Your task to perform on an android device: toggle priority inbox in the gmail app Image 0: 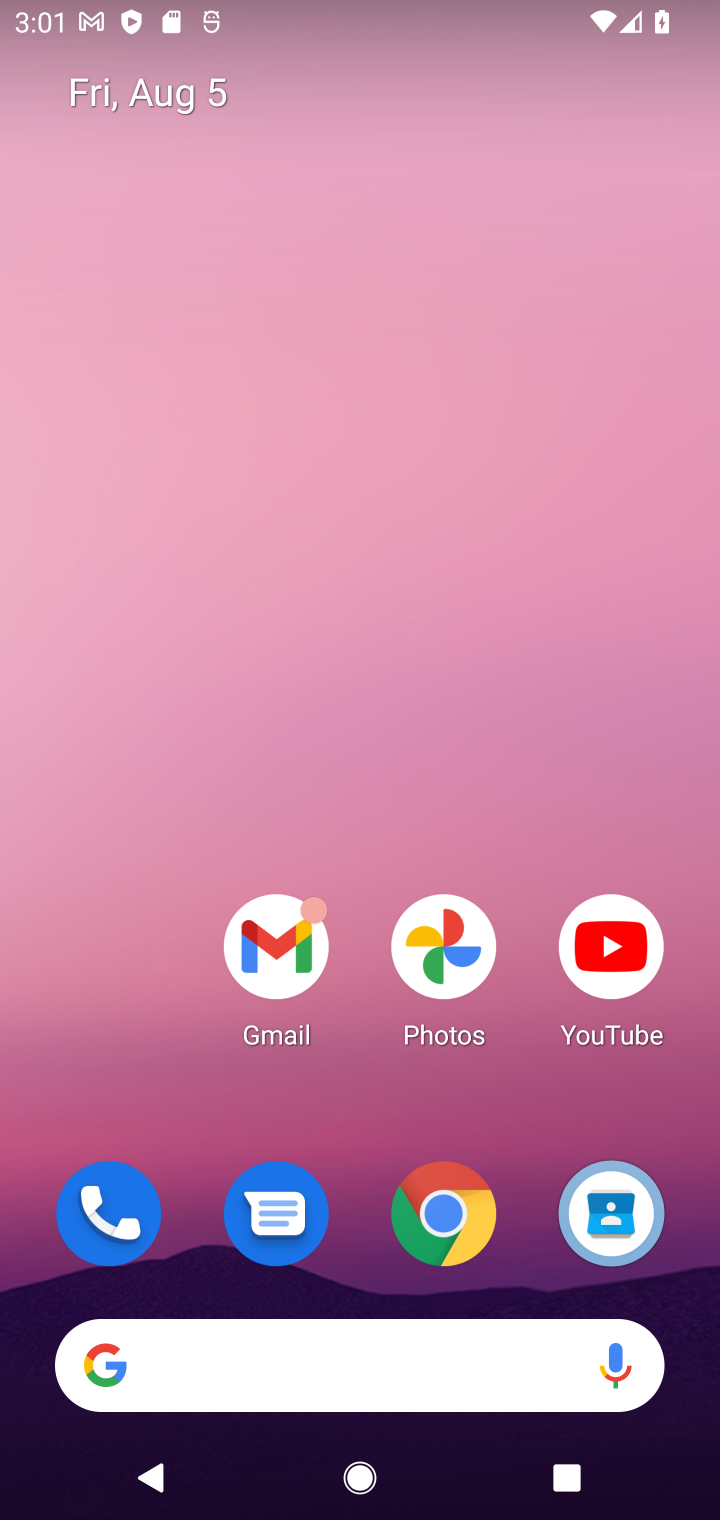
Step 0: click (254, 954)
Your task to perform on an android device: toggle priority inbox in the gmail app Image 1: 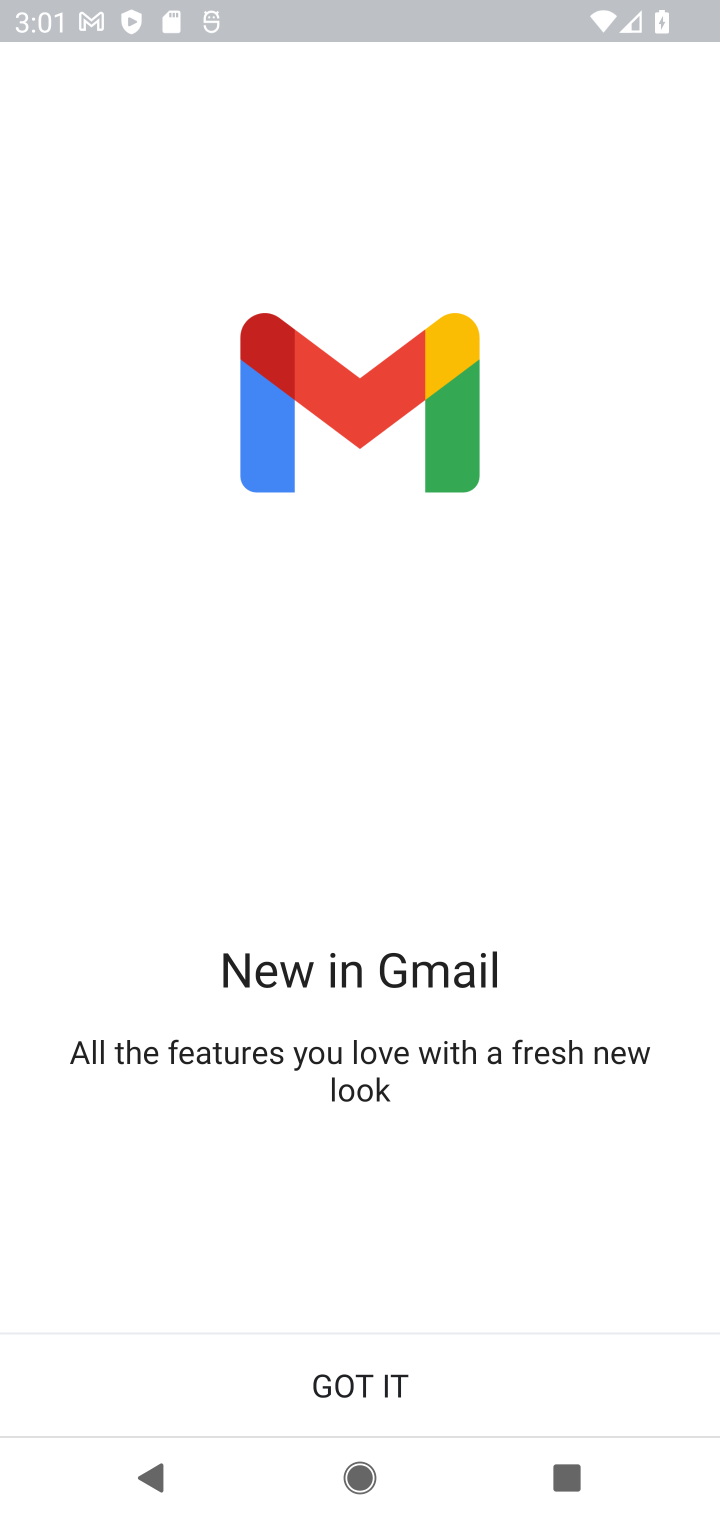
Step 1: click (364, 1374)
Your task to perform on an android device: toggle priority inbox in the gmail app Image 2: 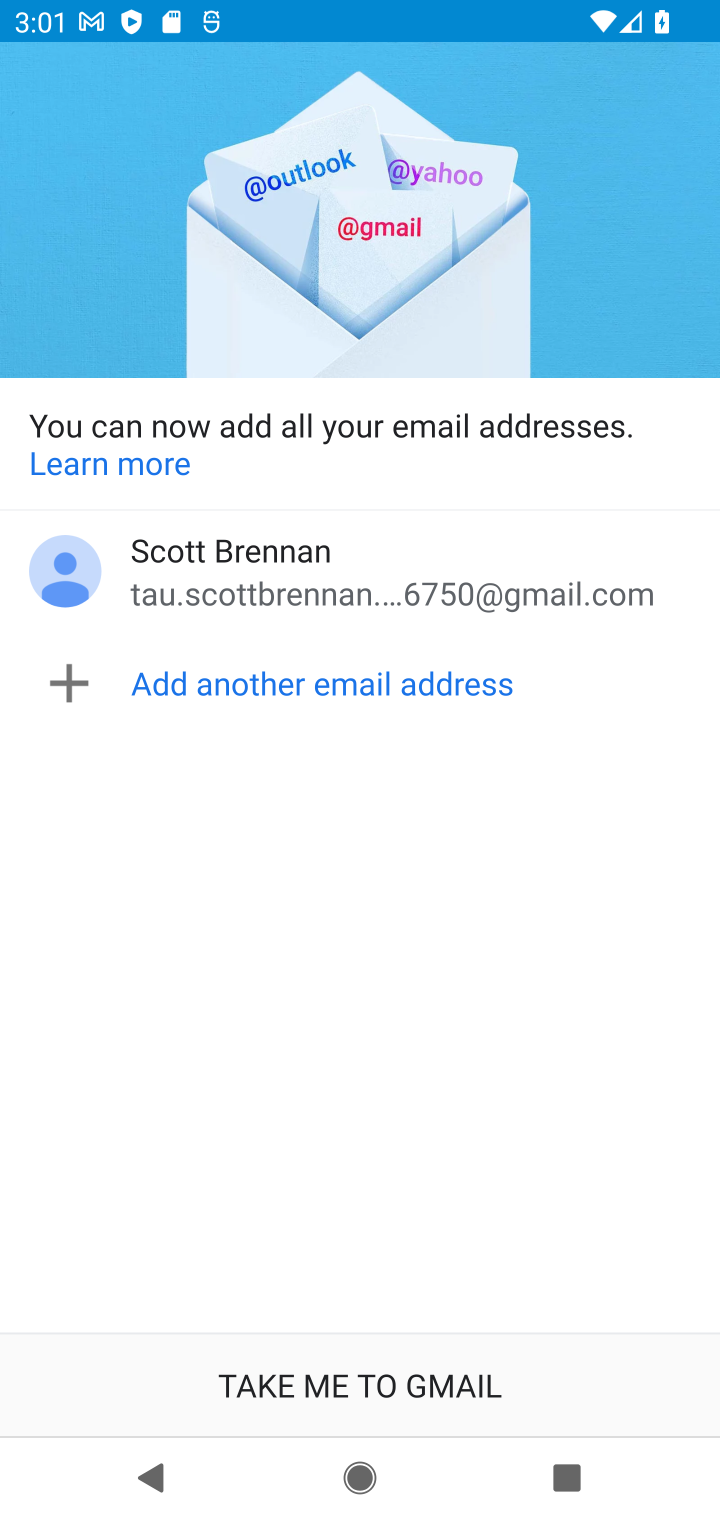
Step 2: click (496, 1379)
Your task to perform on an android device: toggle priority inbox in the gmail app Image 3: 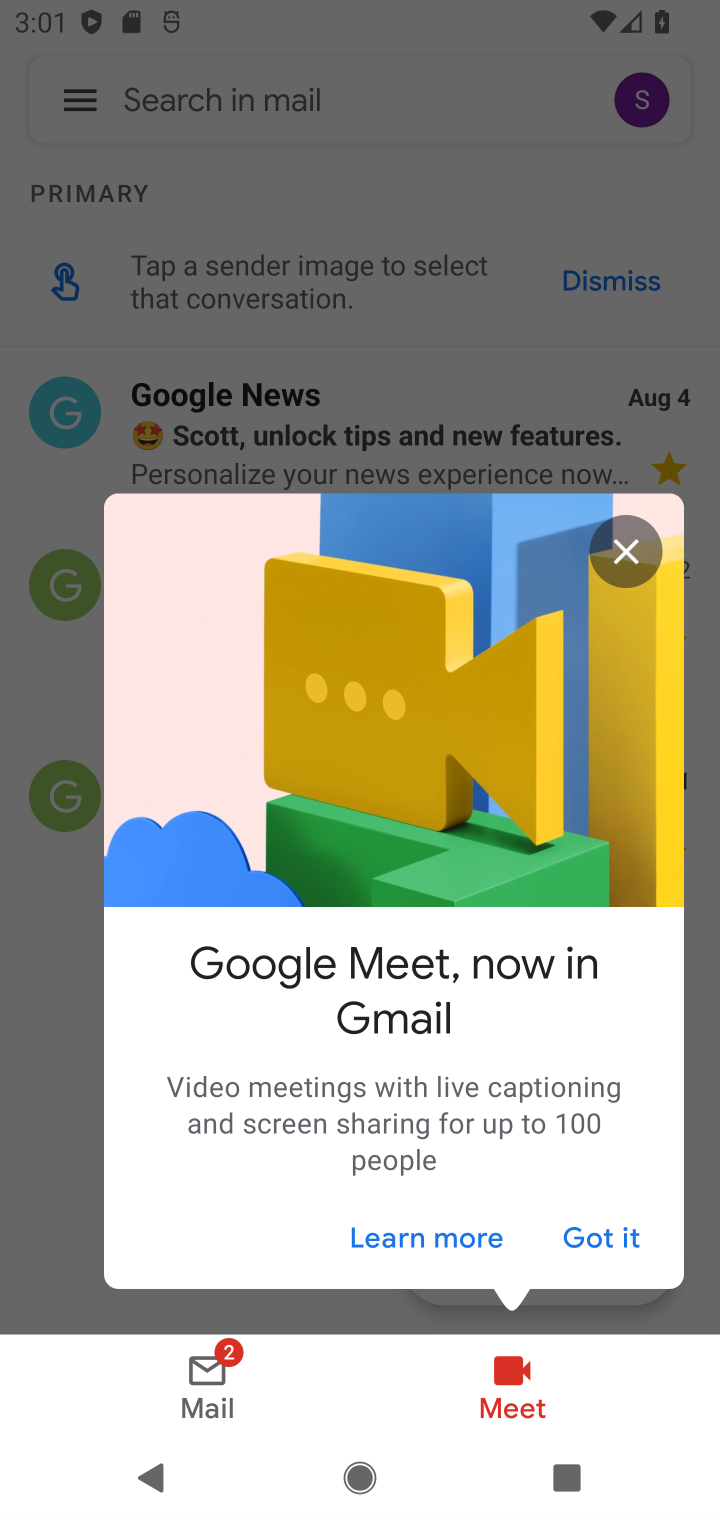
Step 3: click (639, 558)
Your task to perform on an android device: toggle priority inbox in the gmail app Image 4: 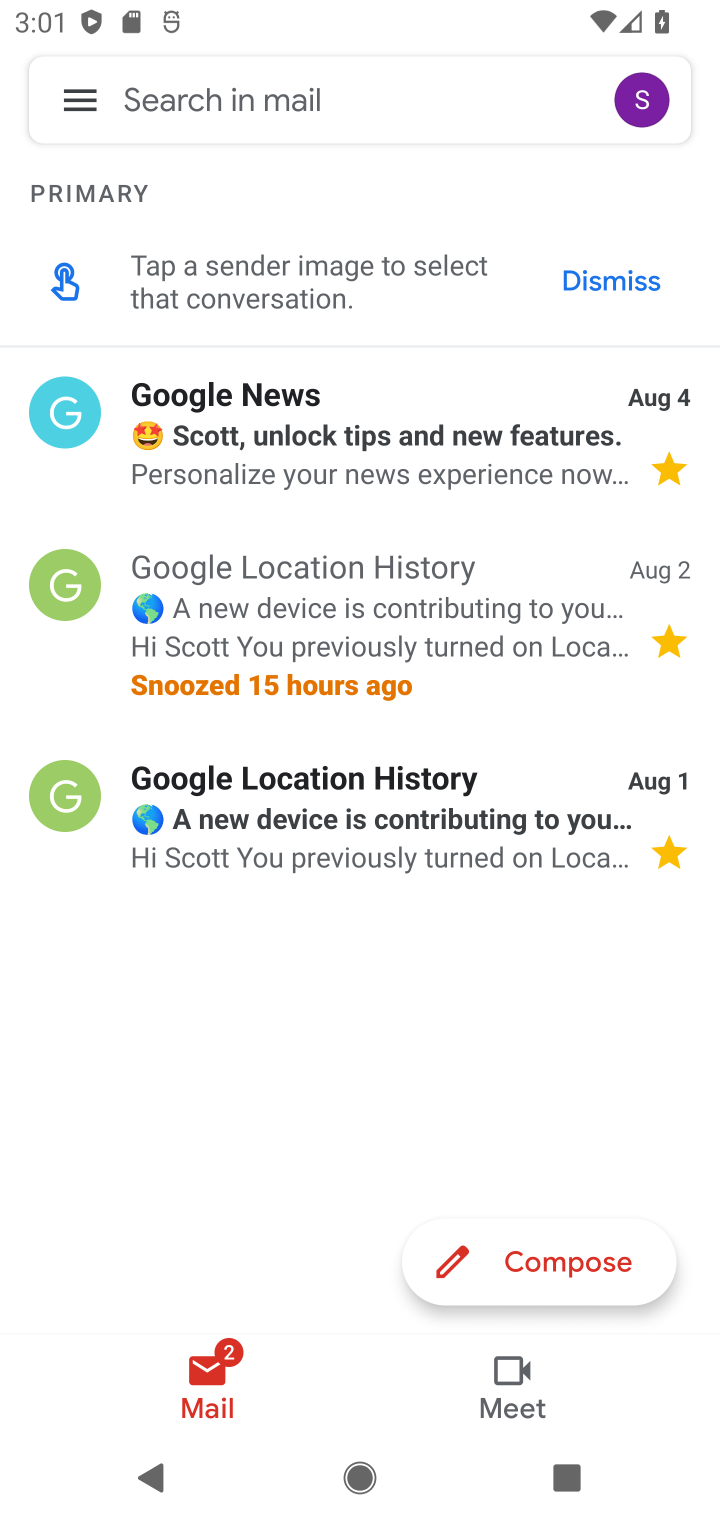
Step 4: click (73, 99)
Your task to perform on an android device: toggle priority inbox in the gmail app Image 5: 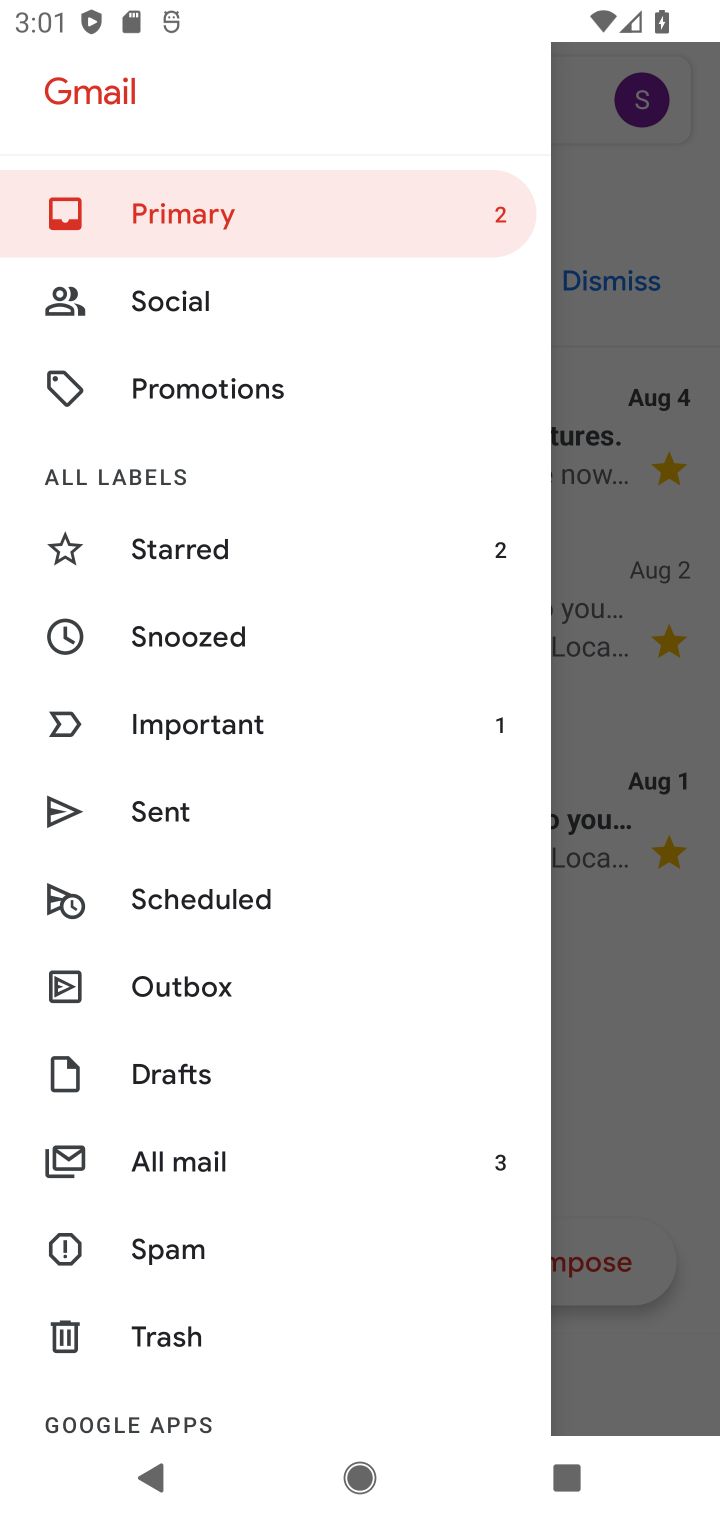
Step 5: drag from (248, 1078) to (324, 433)
Your task to perform on an android device: toggle priority inbox in the gmail app Image 6: 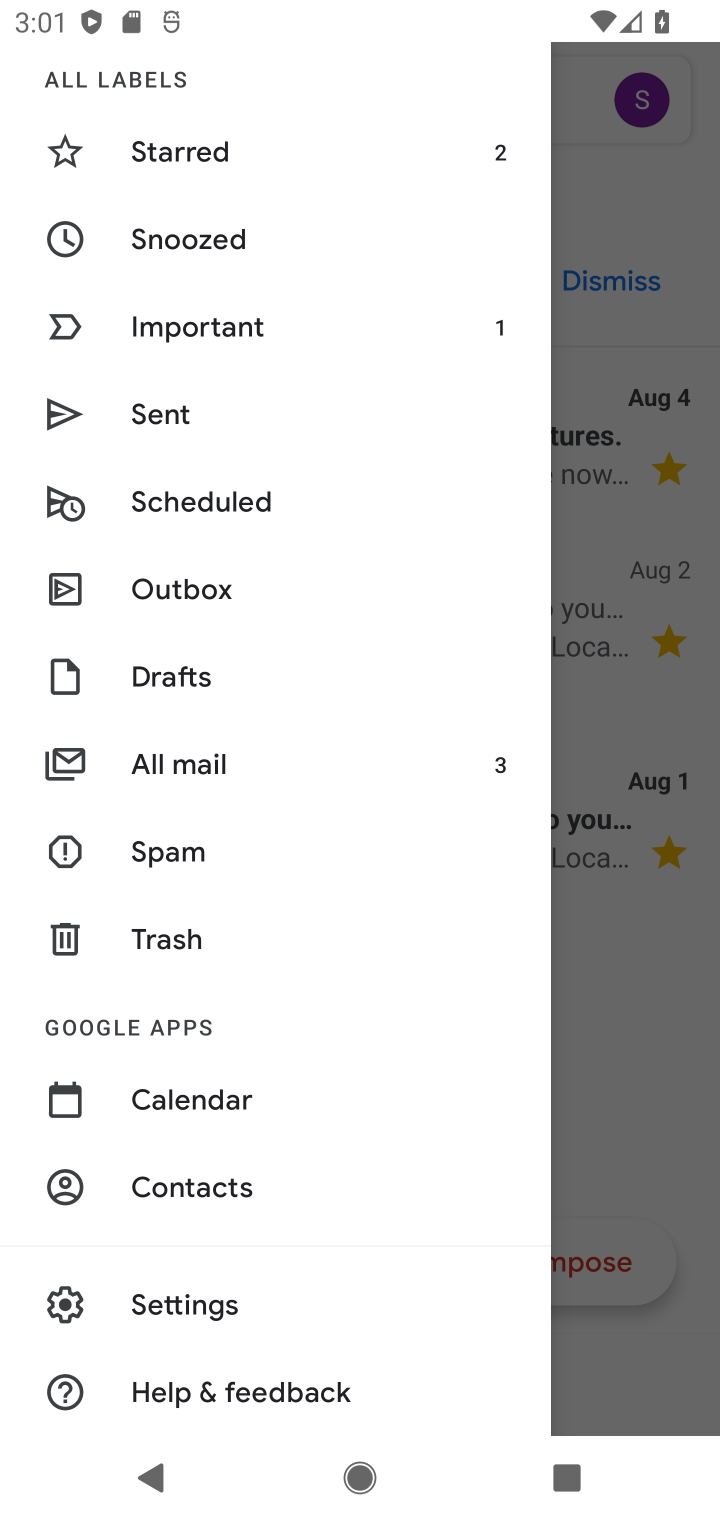
Step 6: click (215, 1292)
Your task to perform on an android device: toggle priority inbox in the gmail app Image 7: 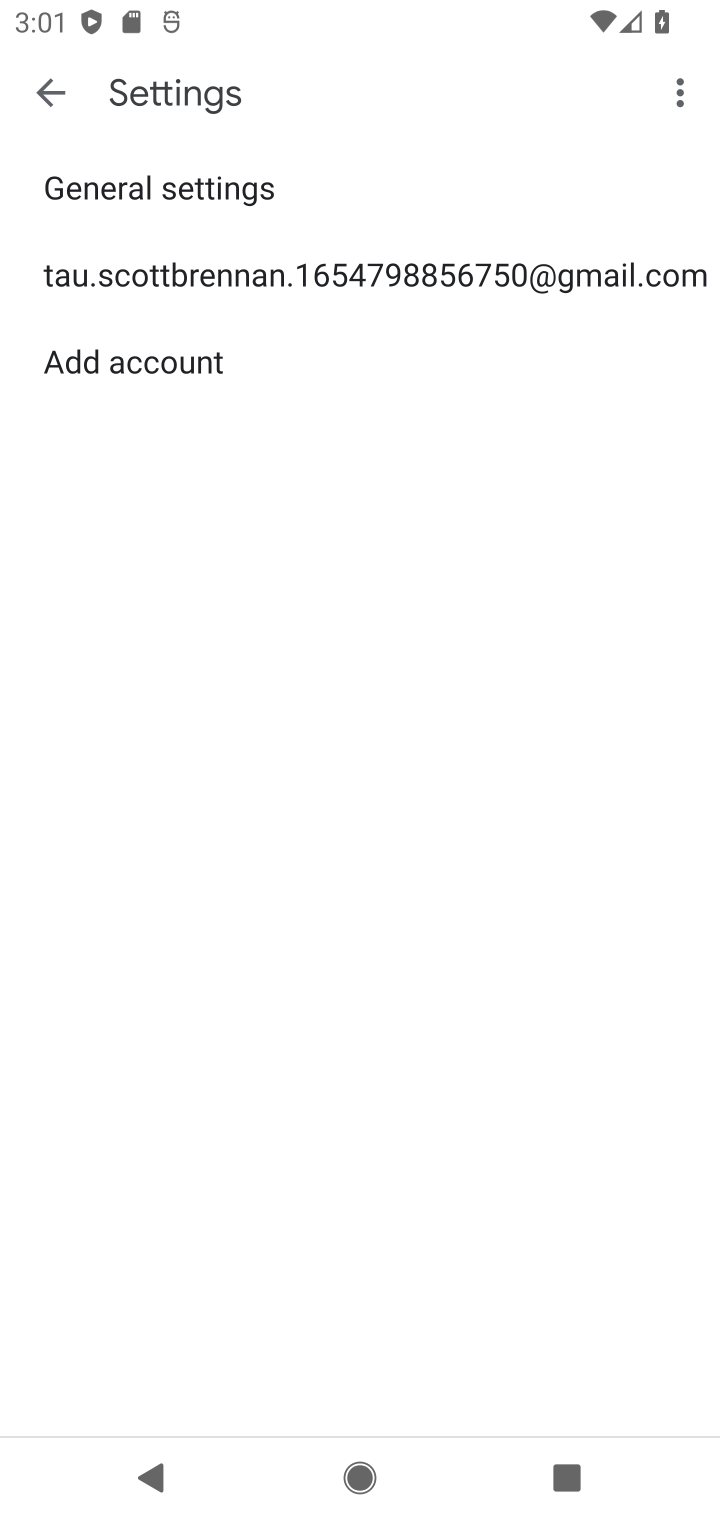
Step 7: click (456, 273)
Your task to perform on an android device: toggle priority inbox in the gmail app Image 8: 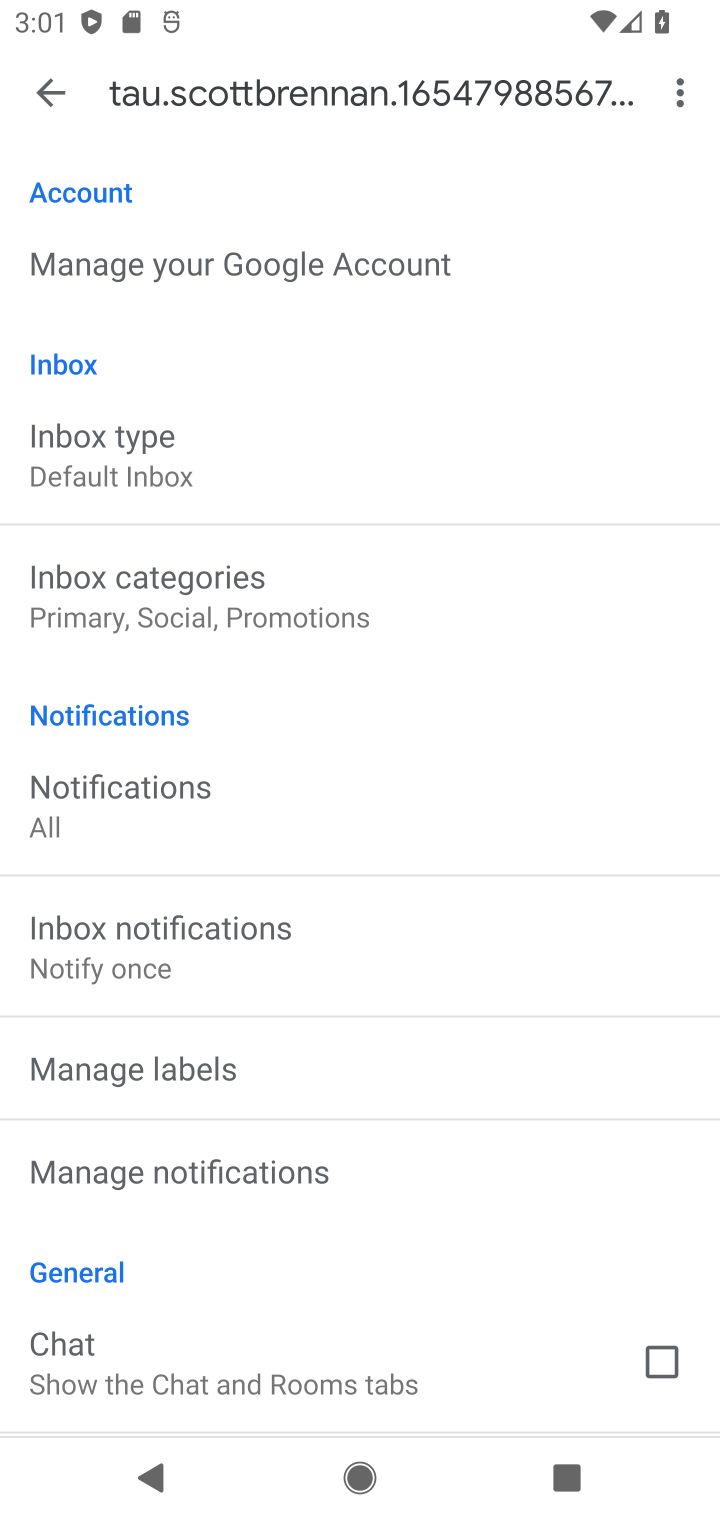
Step 8: click (129, 438)
Your task to perform on an android device: toggle priority inbox in the gmail app Image 9: 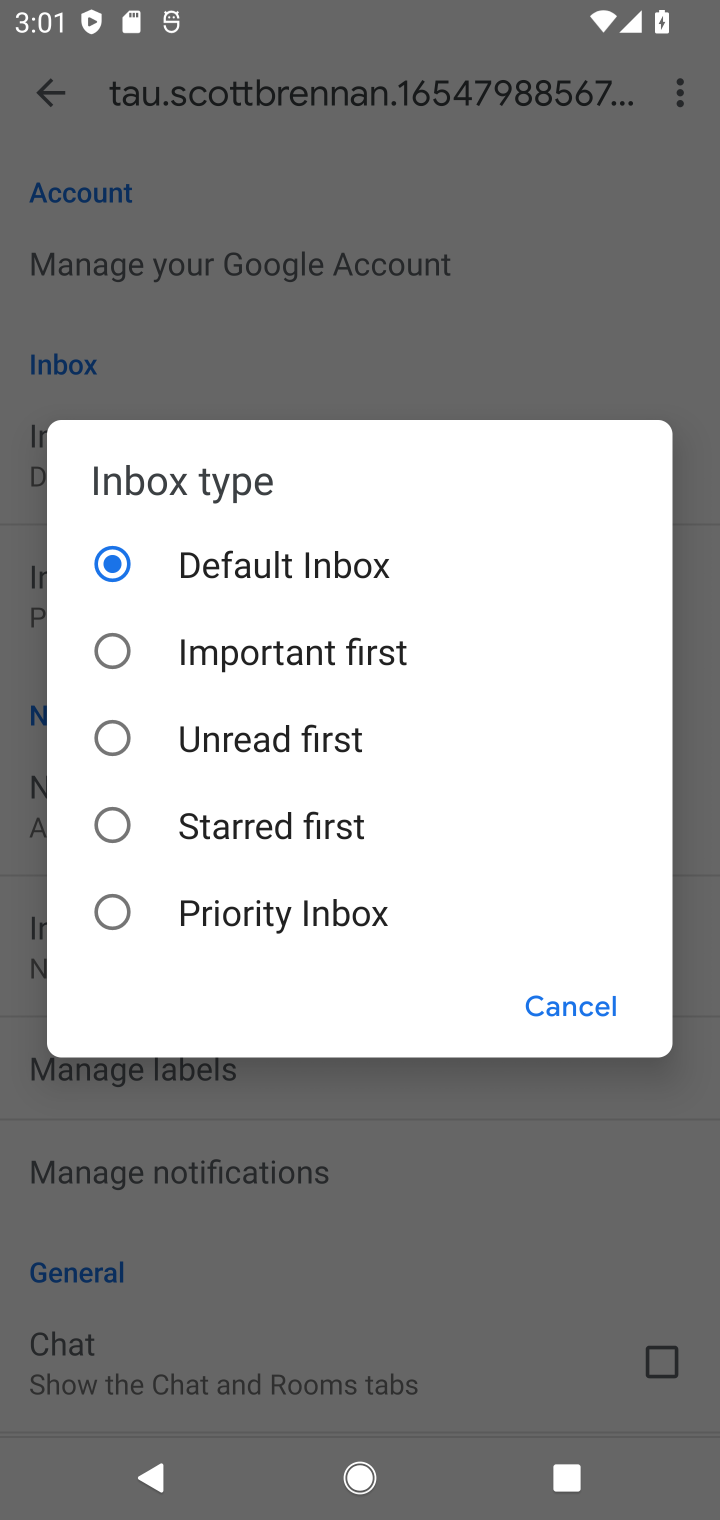
Step 9: click (101, 905)
Your task to perform on an android device: toggle priority inbox in the gmail app Image 10: 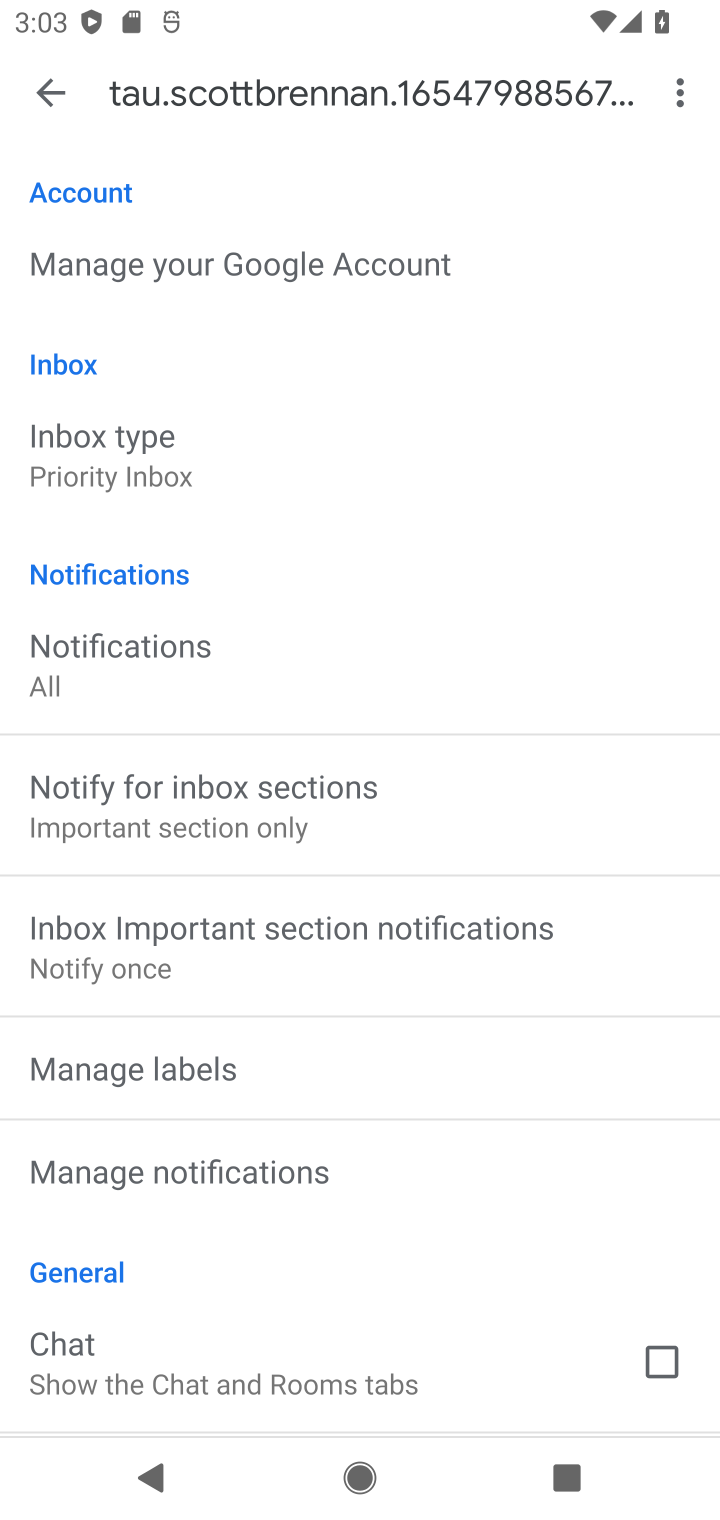
Step 10: task complete